Your task to perform on an android device: Search for seafood restaurants on Google Maps Image 0: 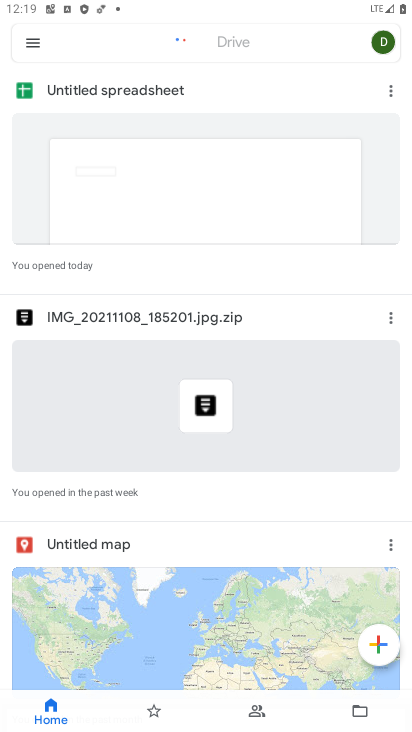
Step 0: press home button
Your task to perform on an android device: Search for seafood restaurants on Google Maps Image 1: 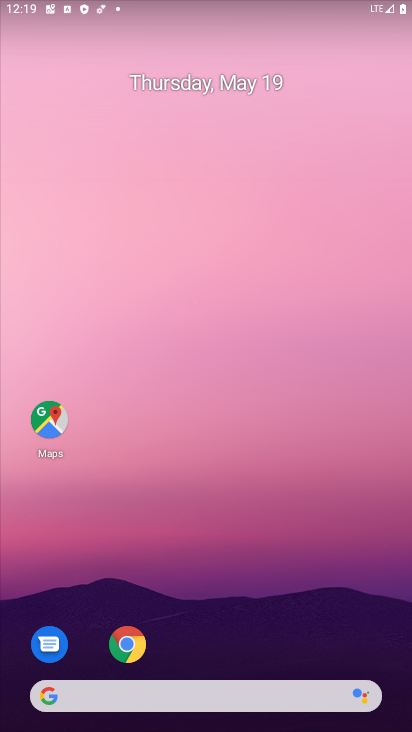
Step 1: drag from (397, 665) to (196, 81)
Your task to perform on an android device: Search for seafood restaurants on Google Maps Image 2: 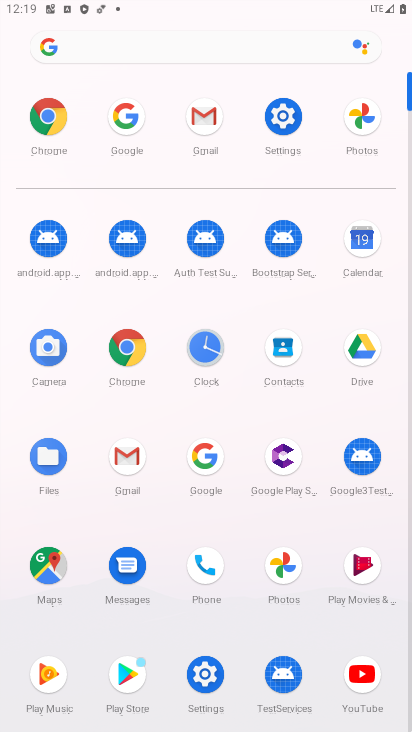
Step 2: click (57, 569)
Your task to perform on an android device: Search for seafood restaurants on Google Maps Image 3: 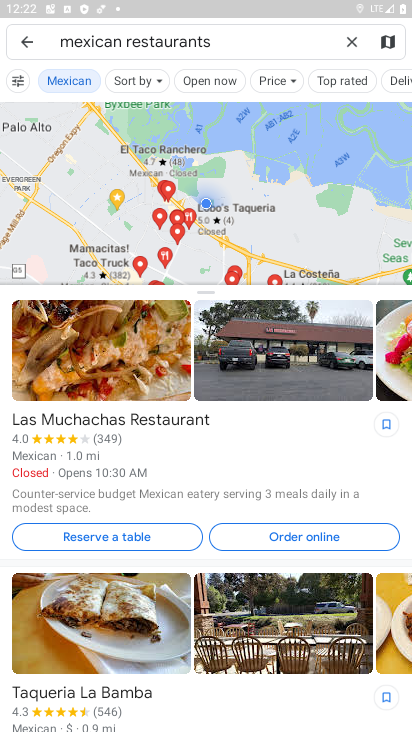
Step 3: click (346, 37)
Your task to perform on an android device: Search for seafood restaurants on Google Maps Image 4: 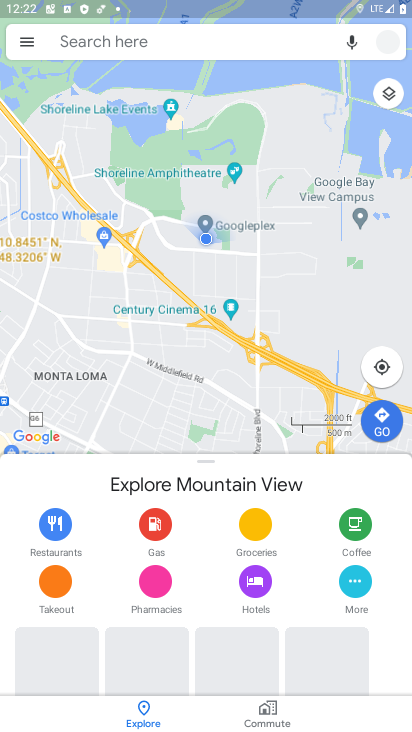
Step 4: click (211, 38)
Your task to perform on an android device: Search for seafood restaurants on Google Maps Image 5: 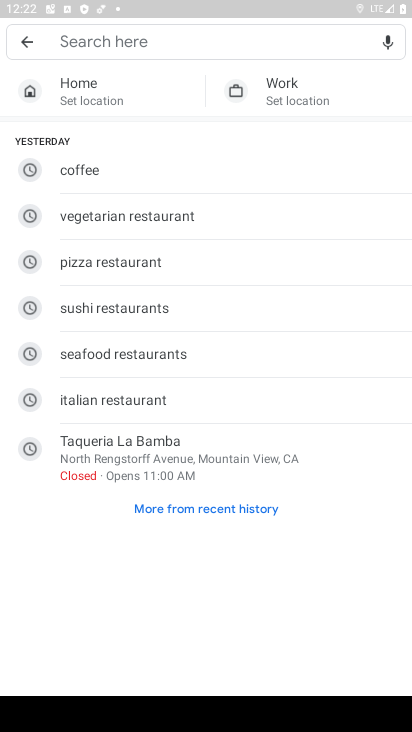
Step 5: click (112, 353)
Your task to perform on an android device: Search for seafood restaurants on Google Maps Image 6: 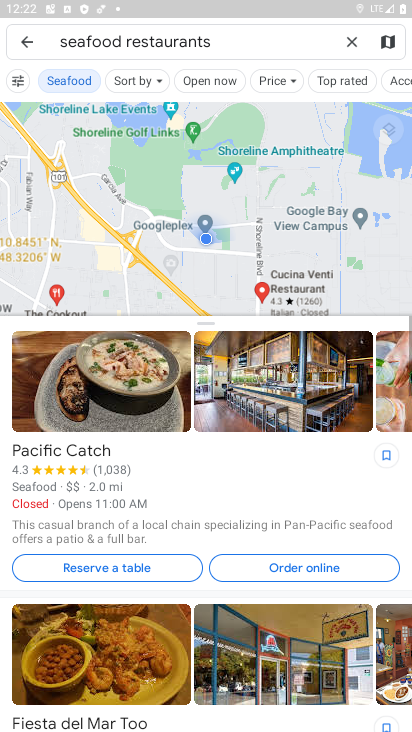
Step 6: task complete